Your task to perform on an android device: turn off picture-in-picture Image 0: 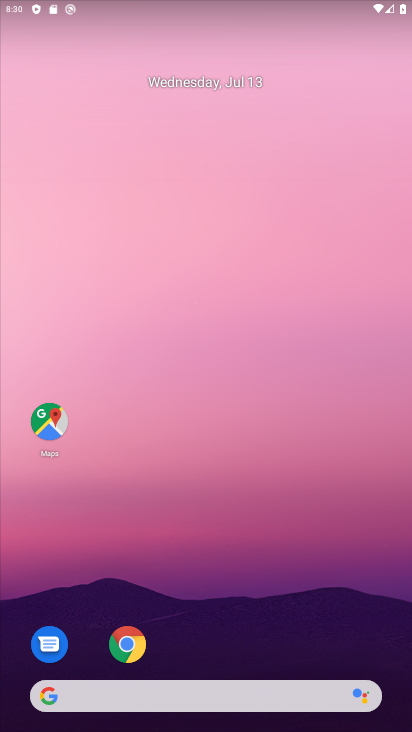
Step 0: drag from (226, 723) to (232, 28)
Your task to perform on an android device: turn off picture-in-picture Image 1: 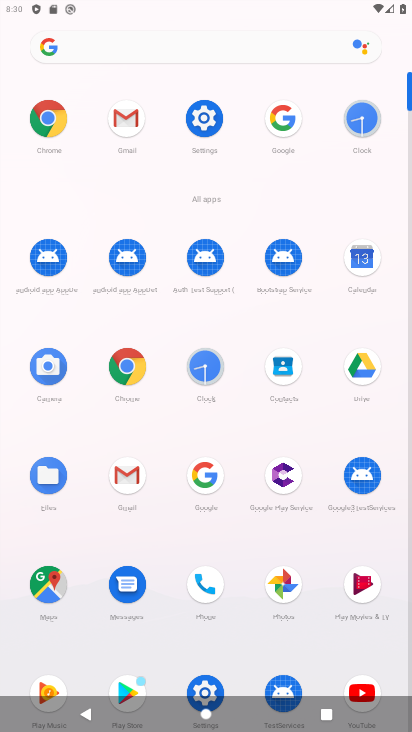
Step 1: click (203, 150)
Your task to perform on an android device: turn off picture-in-picture Image 2: 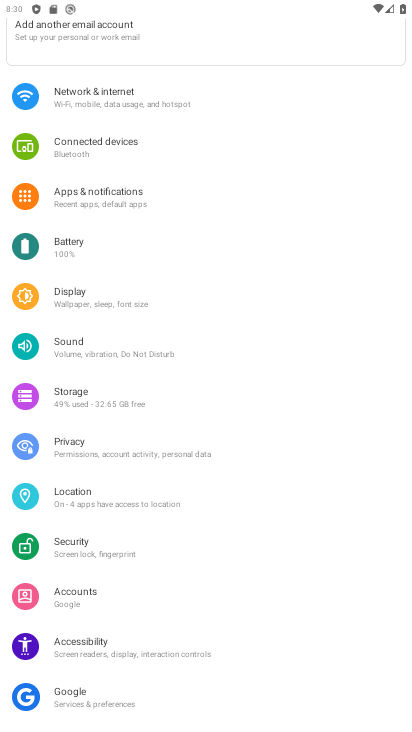
Step 2: click (87, 192)
Your task to perform on an android device: turn off picture-in-picture Image 3: 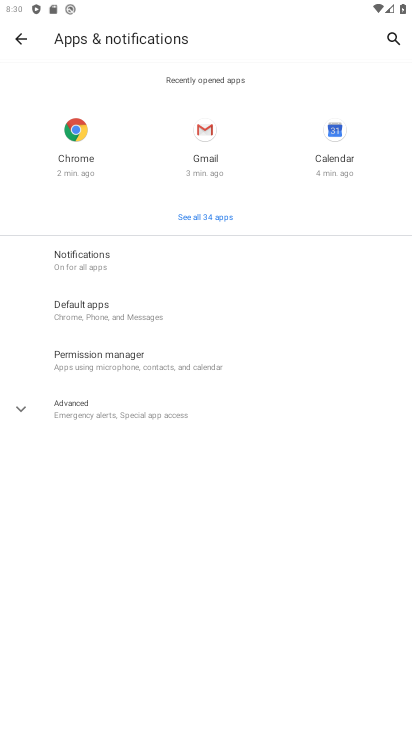
Step 3: click (95, 410)
Your task to perform on an android device: turn off picture-in-picture Image 4: 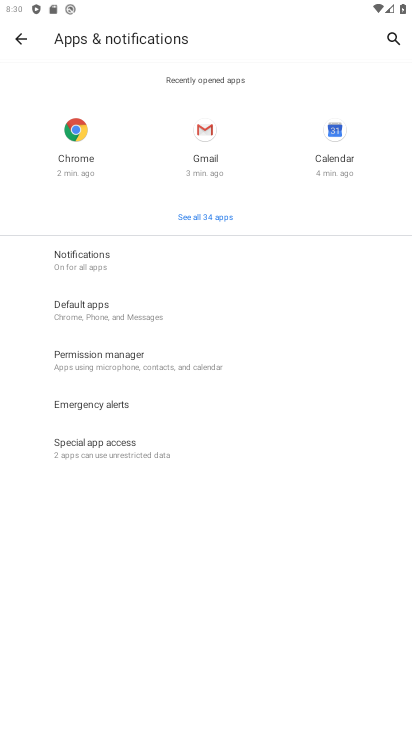
Step 4: click (94, 445)
Your task to perform on an android device: turn off picture-in-picture Image 5: 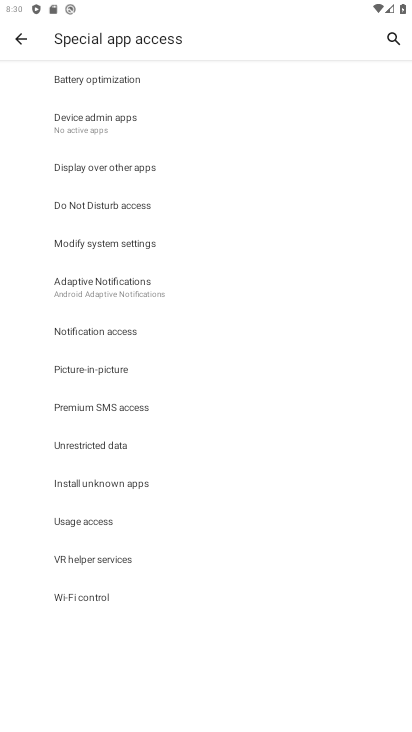
Step 5: click (94, 362)
Your task to perform on an android device: turn off picture-in-picture Image 6: 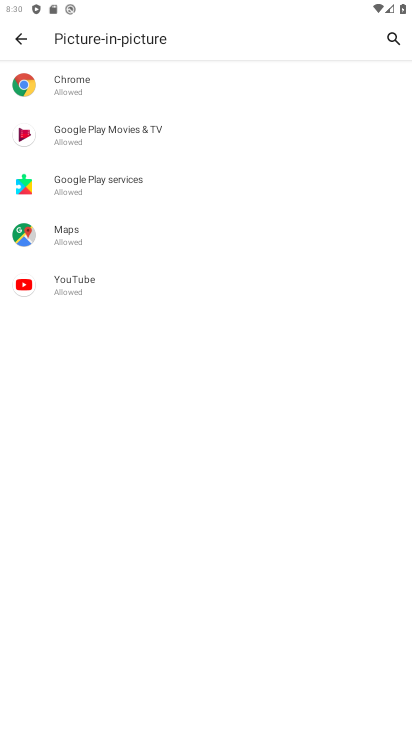
Step 6: click (69, 282)
Your task to perform on an android device: turn off picture-in-picture Image 7: 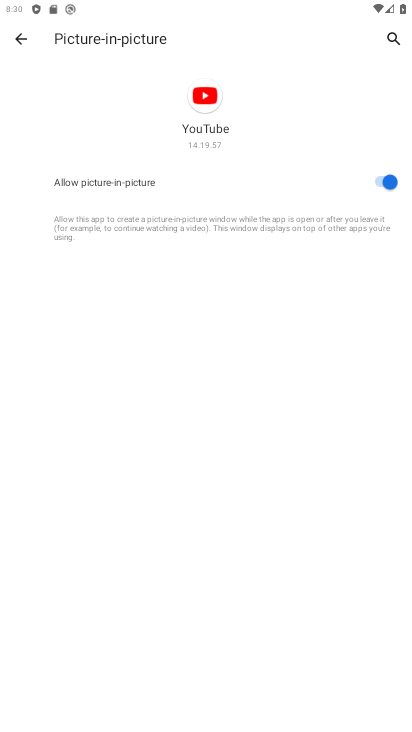
Step 7: click (385, 178)
Your task to perform on an android device: turn off picture-in-picture Image 8: 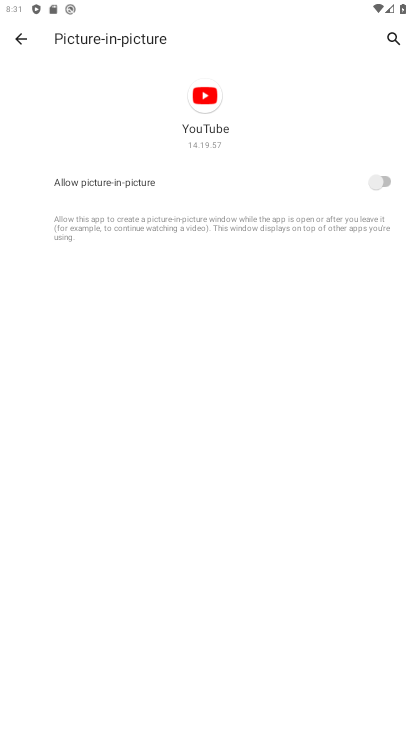
Step 8: task complete